Your task to perform on an android device: Open Wikipedia Image 0: 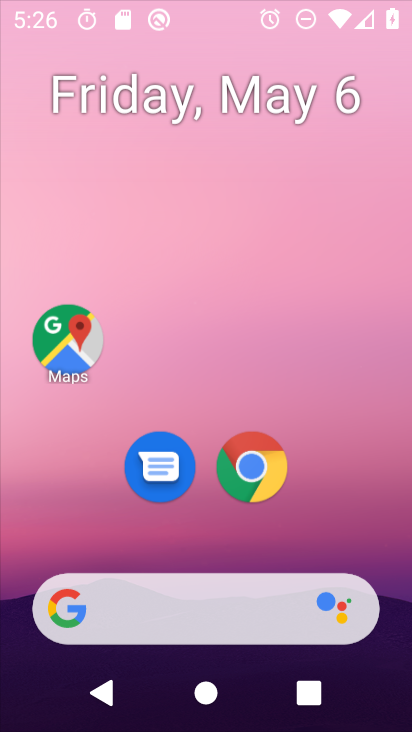
Step 0: drag from (317, 332) to (259, 114)
Your task to perform on an android device: Open Wikipedia Image 1: 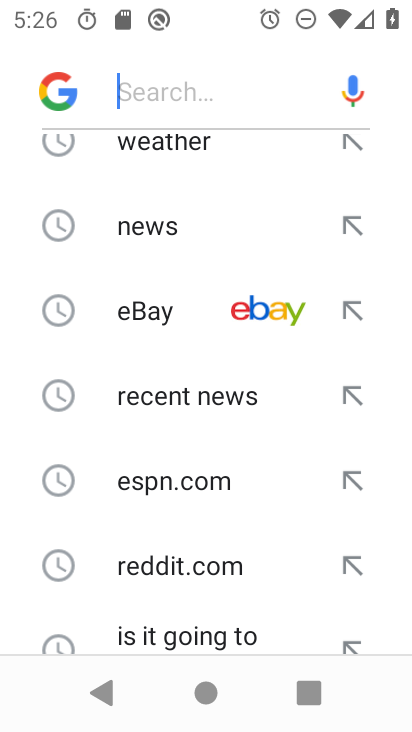
Step 1: click (178, 87)
Your task to perform on an android device: Open Wikipedia Image 2: 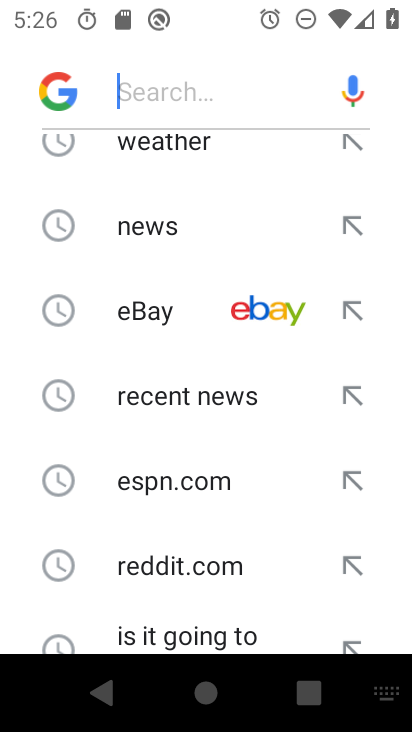
Step 2: press home button
Your task to perform on an android device: Open Wikipedia Image 3: 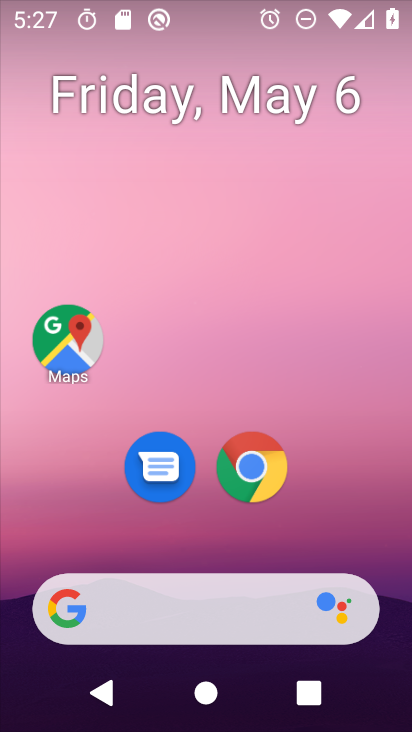
Step 3: drag from (320, 528) to (302, 138)
Your task to perform on an android device: Open Wikipedia Image 4: 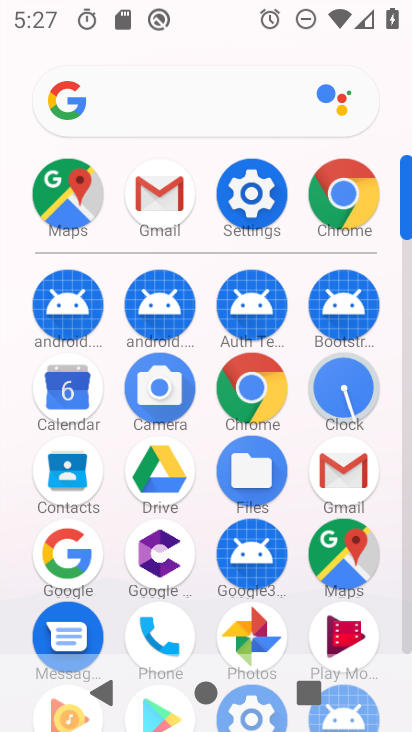
Step 4: click (322, 198)
Your task to perform on an android device: Open Wikipedia Image 5: 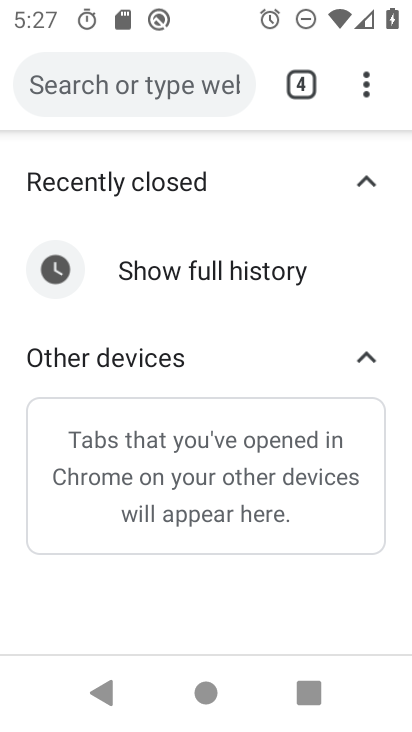
Step 5: press back button
Your task to perform on an android device: Open Wikipedia Image 6: 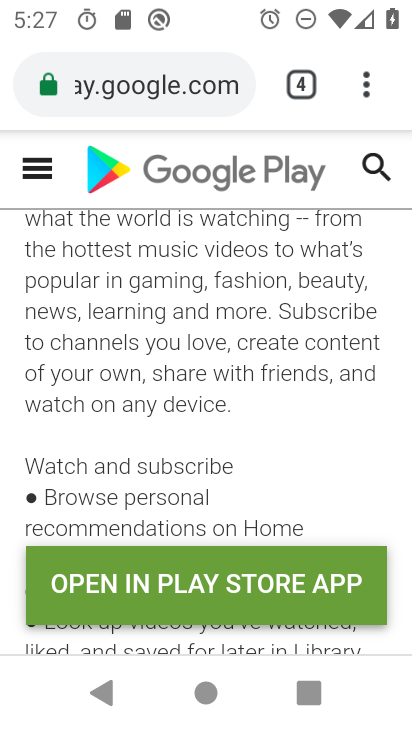
Step 6: click (313, 78)
Your task to perform on an android device: Open Wikipedia Image 7: 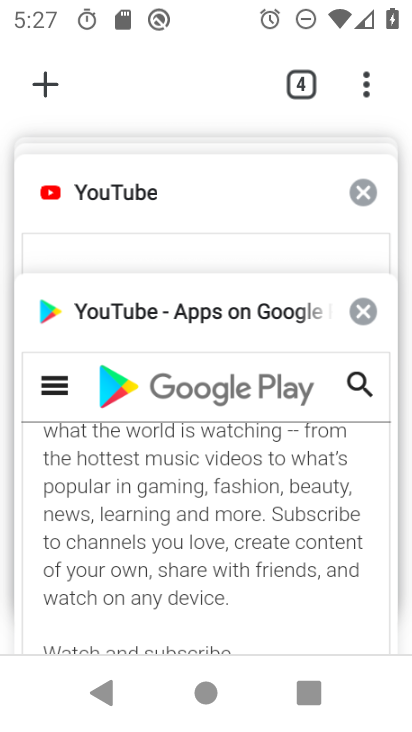
Step 7: click (344, 184)
Your task to perform on an android device: Open Wikipedia Image 8: 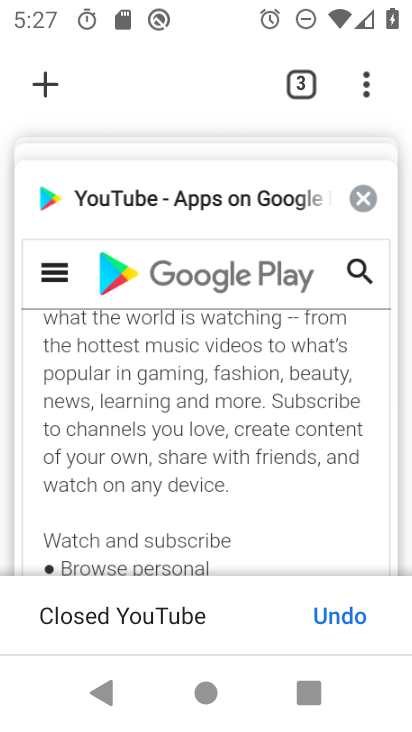
Step 8: click (373, 193)
Your task to perform on an android device: Open Wikipedia Image 9: 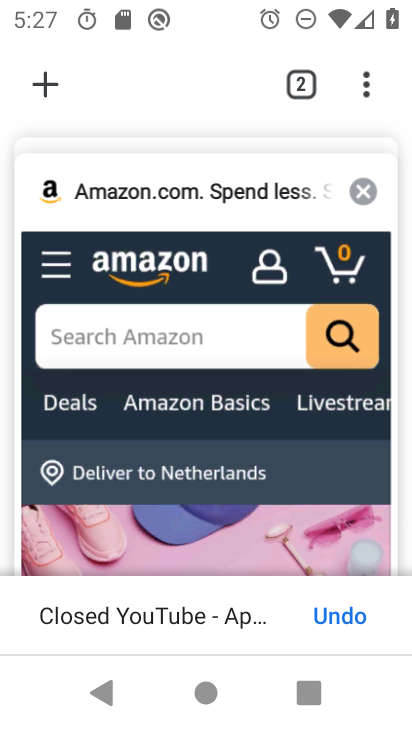
Step 9: click (370, 194)
Your task to perform on an android device: Open Wikipedia Image 10: 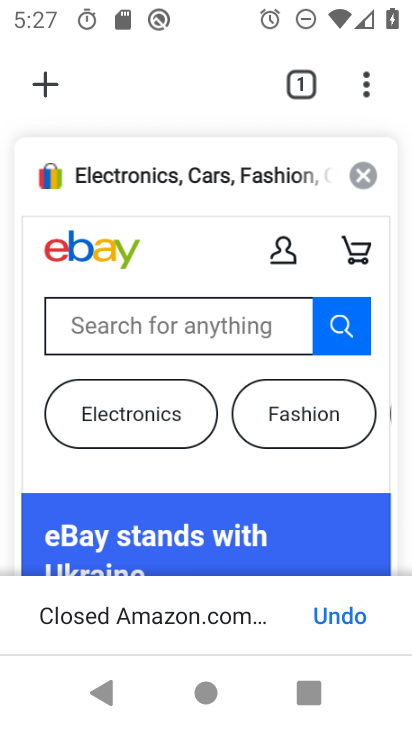
Step 10: click (360, 171)
Your task to perform on an android device: Open Wikipedia Image 11: 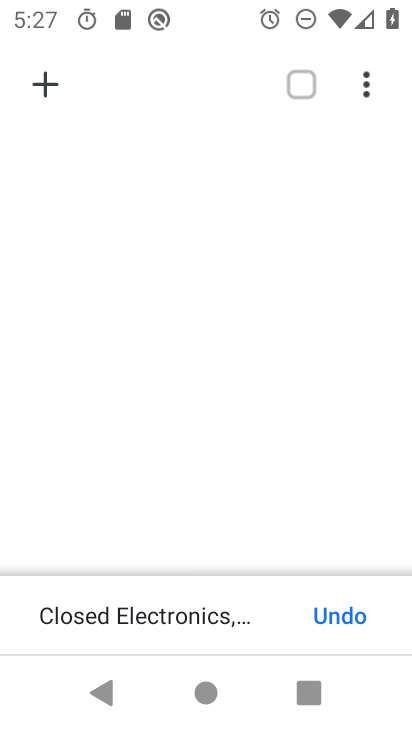
Step 11: click (34, 71)
Your task to perform on an android device: Open Wikipedia Image 12: 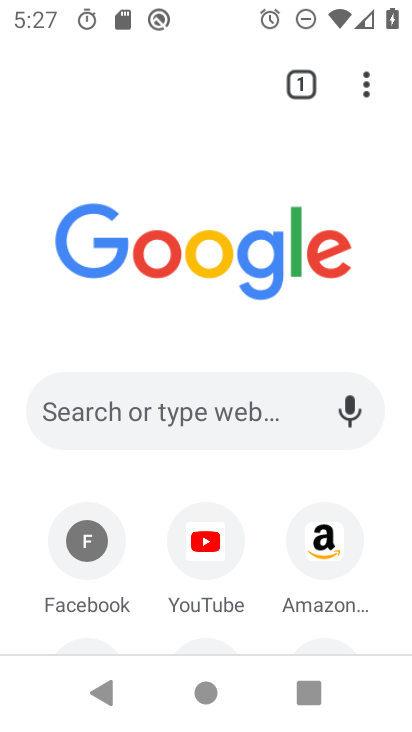
Step 12: drag from (214, 485) to (244, 204)
Your task to perform on an android device: Open Wikipedia Image 13: 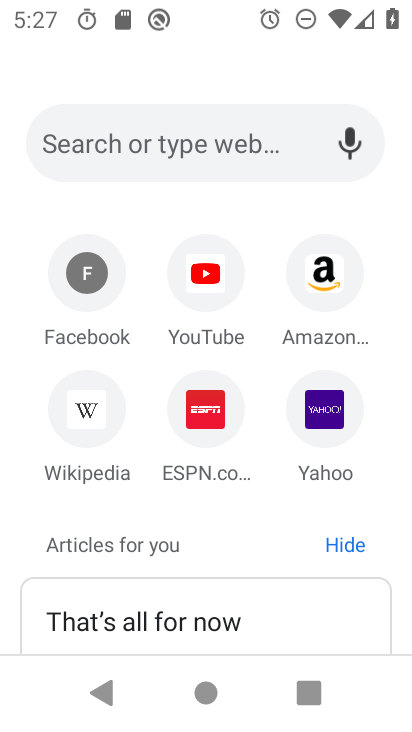
Step 13: click (71, 434)
Your task to perform on an android device: Open Wikipedia Image 14: 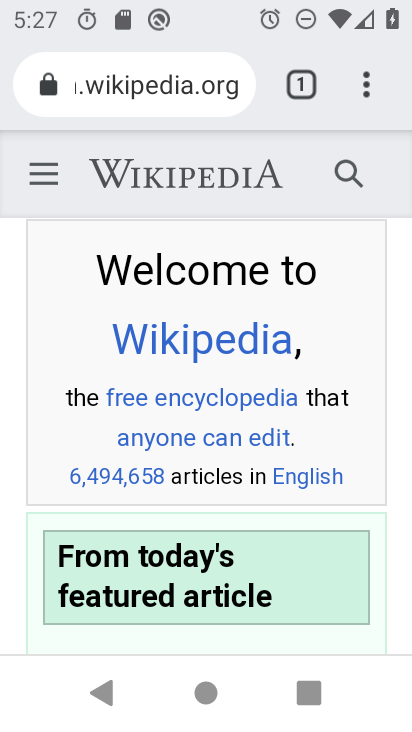
Step 14: task complete